Your task to perform on an android device: What's on my calendar tomorrow? Image 0: 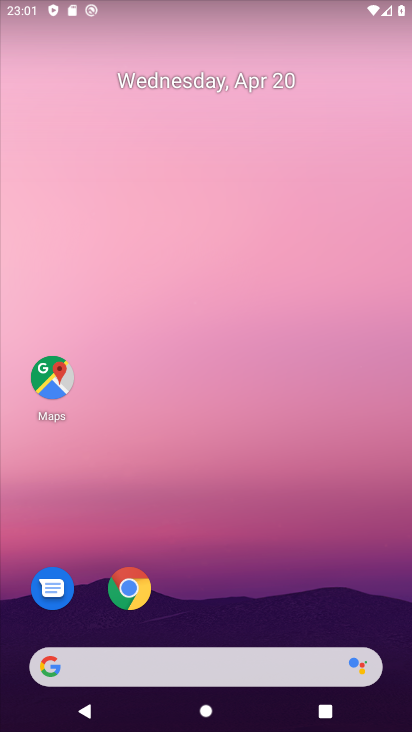
Step 0: drag from (177, 650) to (283, 135)
Your task to perform on an android device: What's on my calendar tomorrow? Image 1: 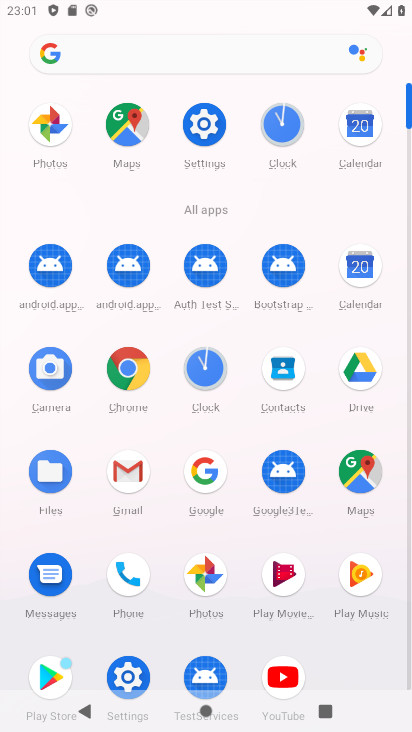
Step 1: click (362, 285)
Your task to perform on an android device: What's on my calendar tomorrow? Image 2: 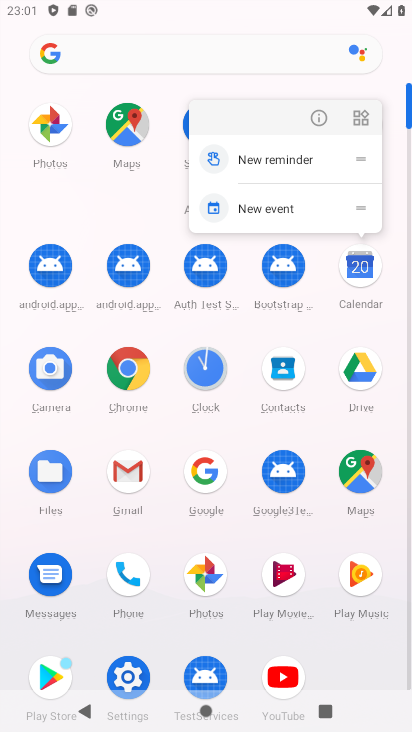
Step 2: click (367, 277)
Your task to perform on an android device: What's on my calendar tomorrow? Image 3: 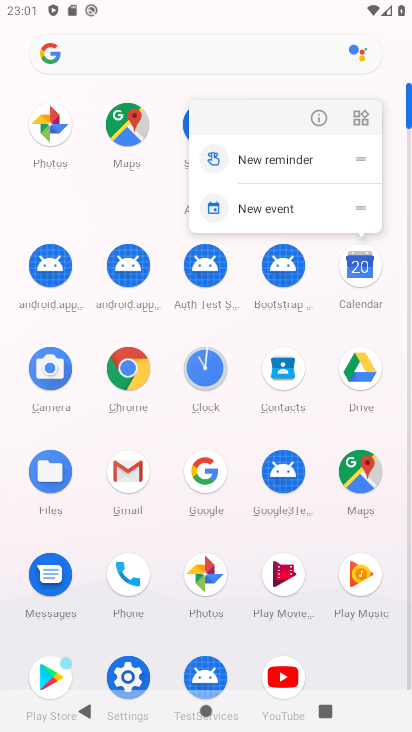
Step 3: click (351, 290)
Your task to perform on an android device: What's on my calendar tomorrow? Image 4: 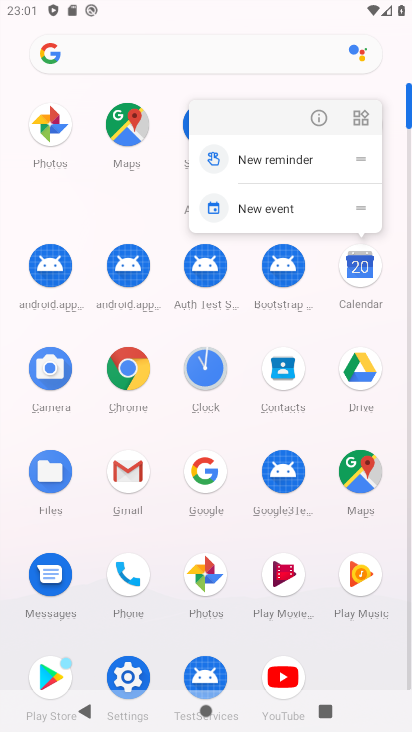
Step 4: click (348, 277)
Your task to perform on an android device: What's on my calendar tomorrow? Image 5: 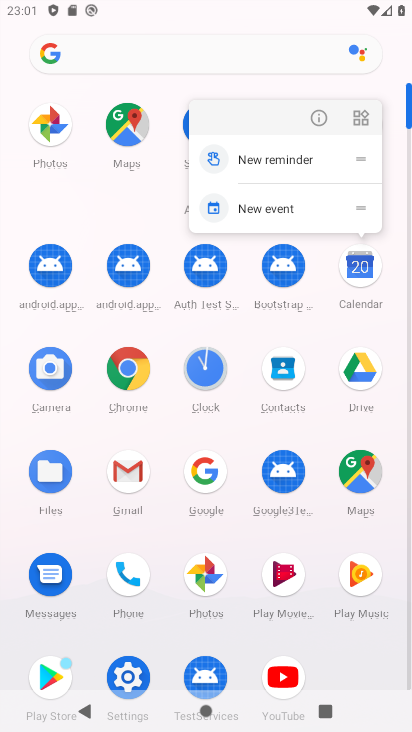
Step 5: click (347, 276)
Your task to perform on an android device: What's on my calendar tomorrow? Image 6: 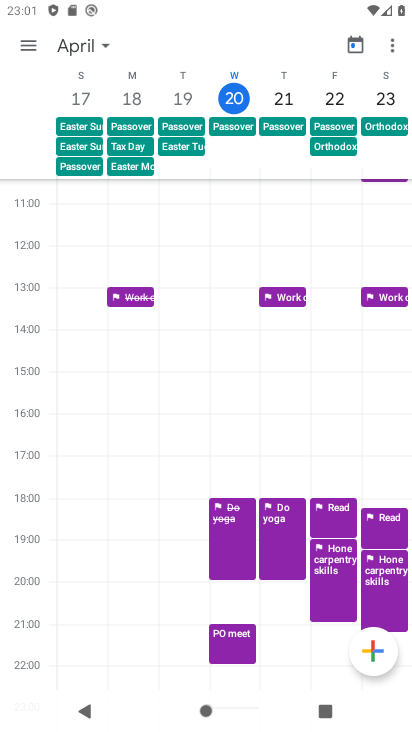
Step 6: click (230, 91)
Your task to perform on an android device: What's on my calendar tomorrow? Image 7: 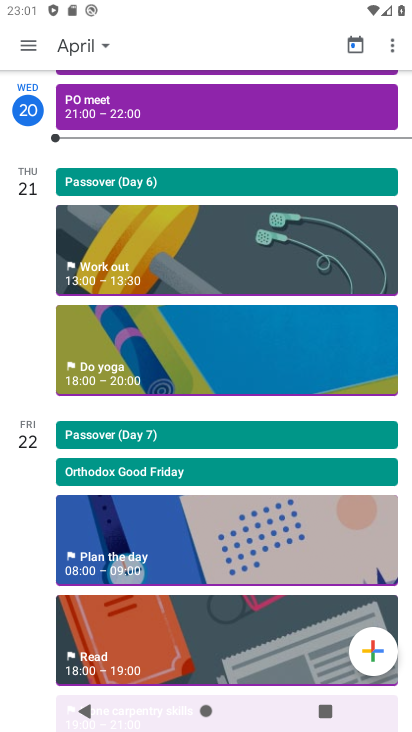
Step 7: click (397, 51)
Your task to perform on an android device: What's on my calendar tomorrow? Image 8: 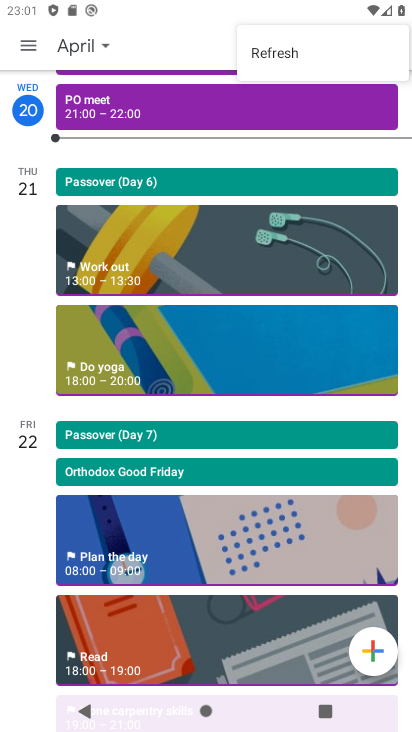
Step 8: click (388, 57)
Your task to perform on an android device: What's on my calendar tomorrow? Image 9: 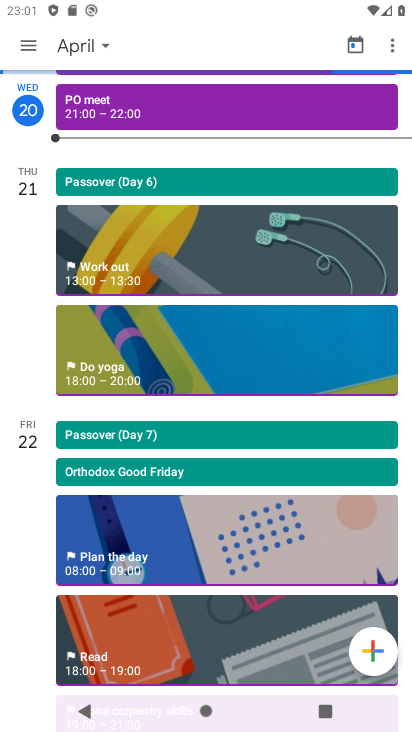
Step 9: click (385, 50)
Your task to perform on an android device: What's on my calendar tomorrow? Image 10: 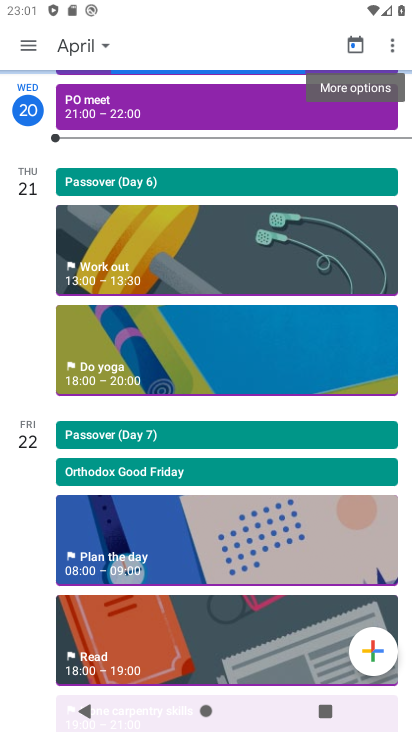
Step 10: click (386, 80)
Your task to perform on an android device: What's on my calendar tomorrow? Image 11: 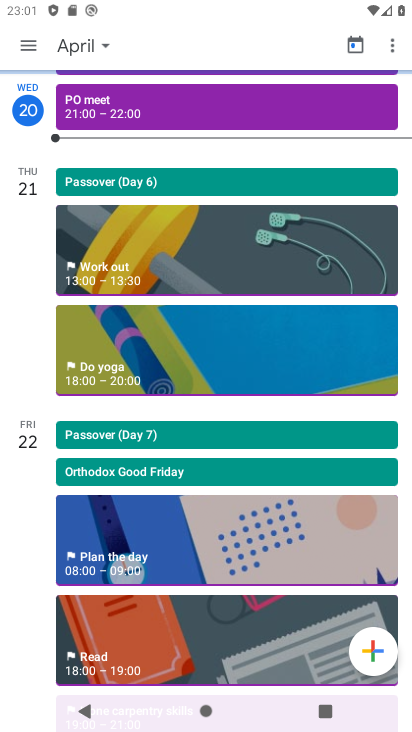
Step 11: click (394, 45)
Your task to perform on an android device: What's on my calendar tomorrow? Image 12: 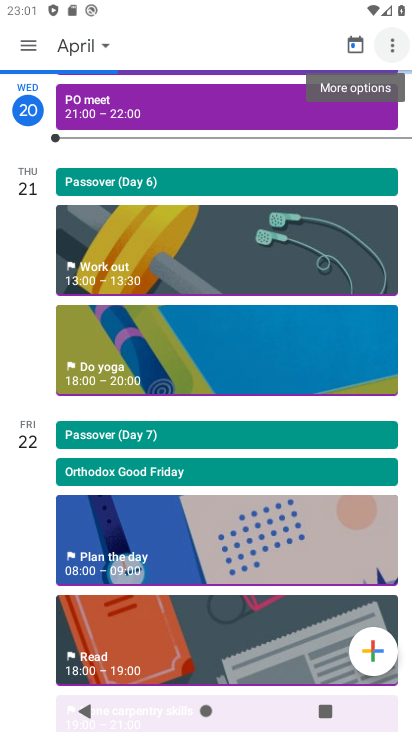
Step 12: click (382, 85)
Your task to perform on an android device: What's on my calendar tomorrow? Image 13: 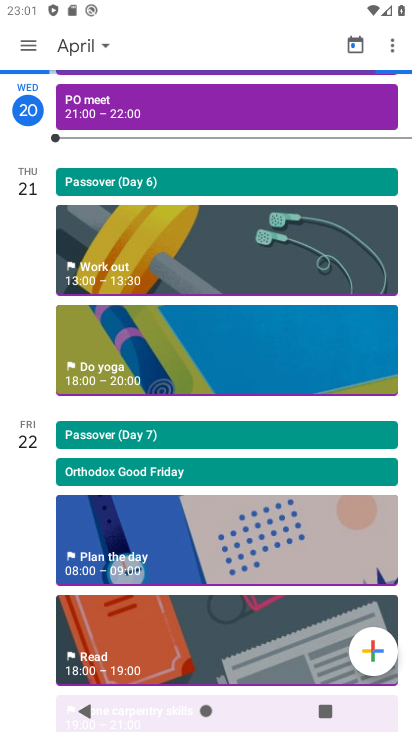
Step 13: task complete